Your task to perform on an android device: see creations saved in the google photos Image 0: 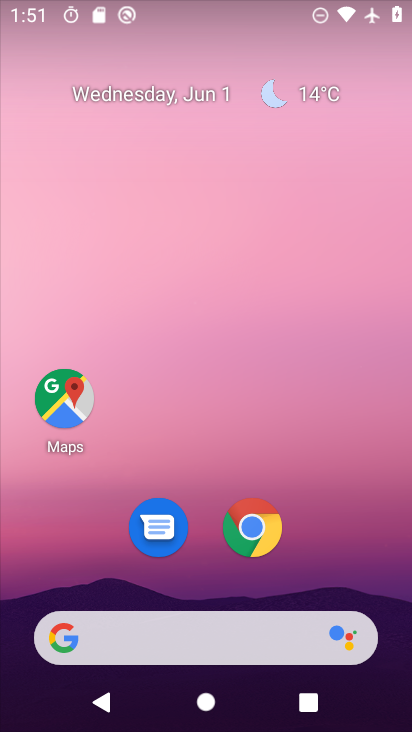
Step 0: drag from (186, 491) to (208, 114)
Your task to perform on an android device: see creations saved in the google photos Image 1: 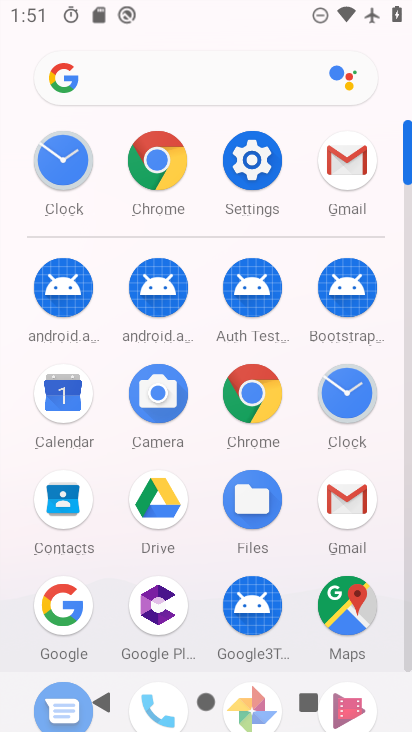
Step 1: drag from (246, 381) to (273, 127)
Your task to perform on an android device: see creations saved in the google photos Image 2: 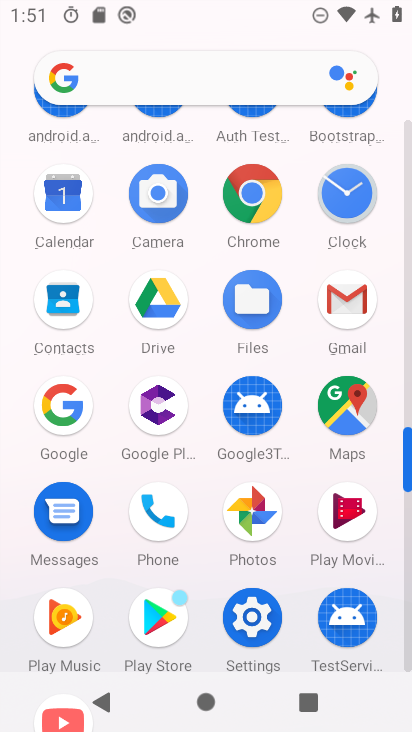
Step 2: drag from (242, 416) to (265, 271)
Your task to perform on an android device: see creations saved in the google photos Image 3: 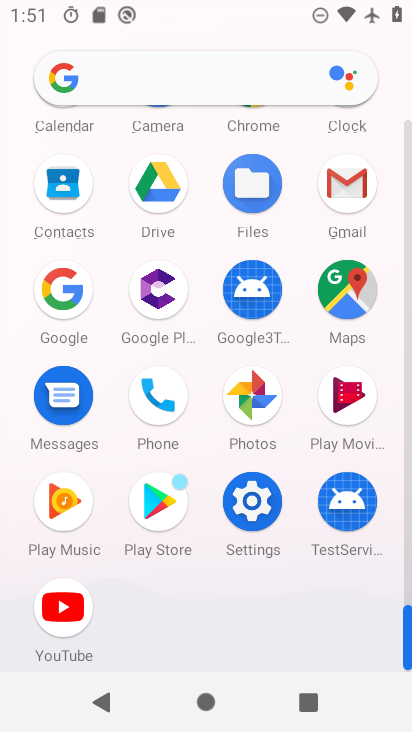
Step 3: click (241, 420)
Your task to perform on an android device: see creations saved in the google photos Image 4: 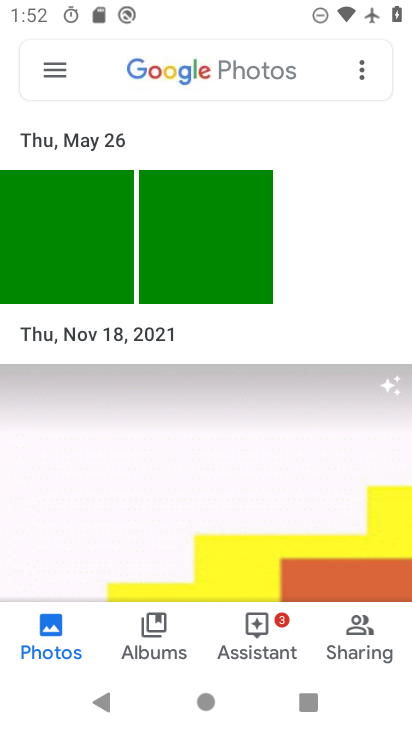
Step 4: click (279, 636)
Your task to perform on an android device: see creations saved in the google photos Image 5: 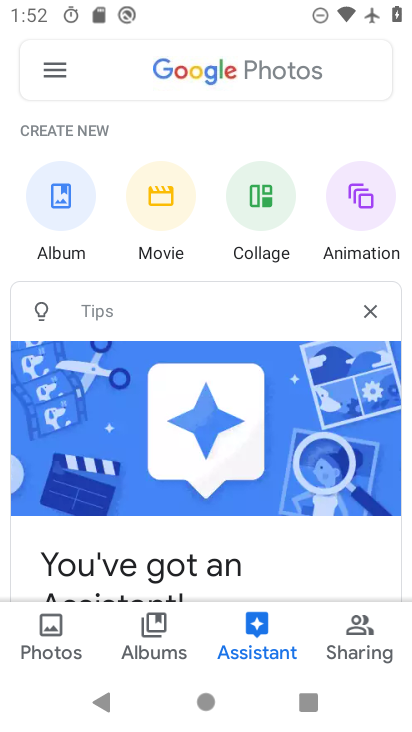
Step 5: task complete